Your task to perform on an android device: set default search engine in the chrome app Image 0: 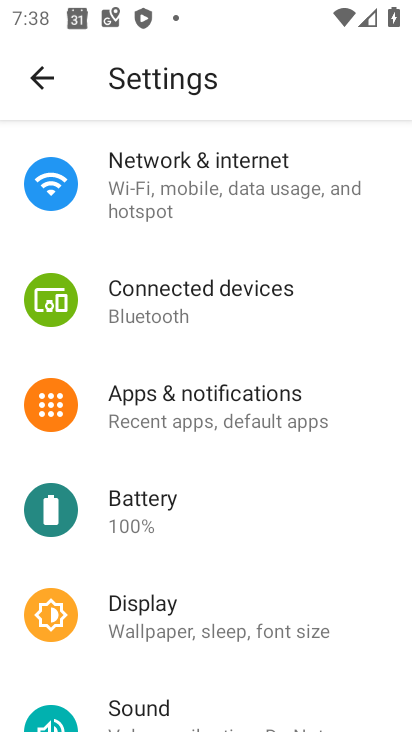
Step 0: press home button
Your task to perform on an android device: set default search engine in the chrome app Image 1: 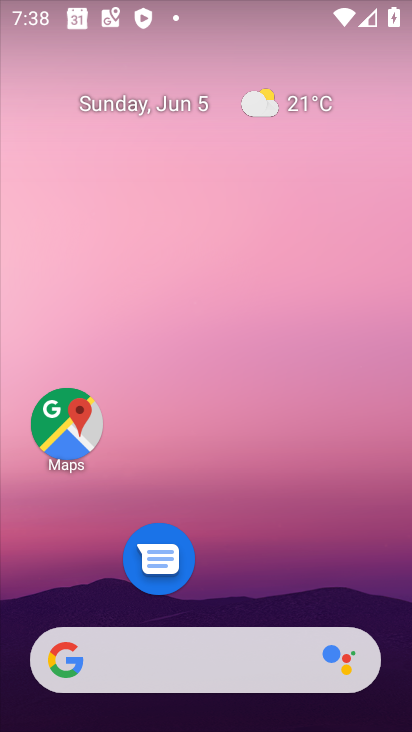
Step 1: drag from (248, 619) to (144, 36)
Your task to perform on an android device: set default search engine in the chrome app Image 2: 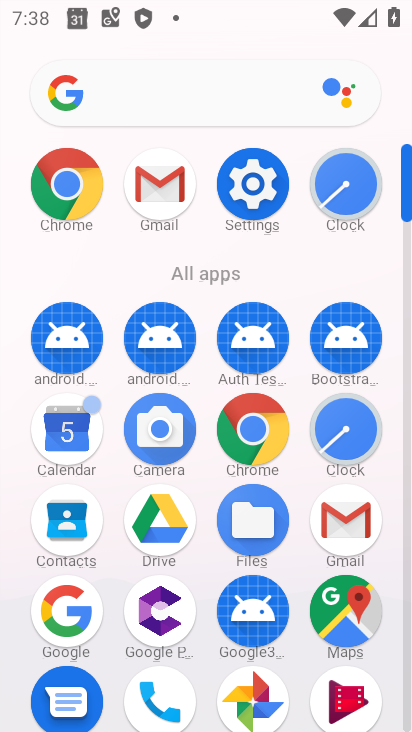
Step 2: click (260, 434)
Your task to perform on an android device: set default search engine in the chrome app Image 3: 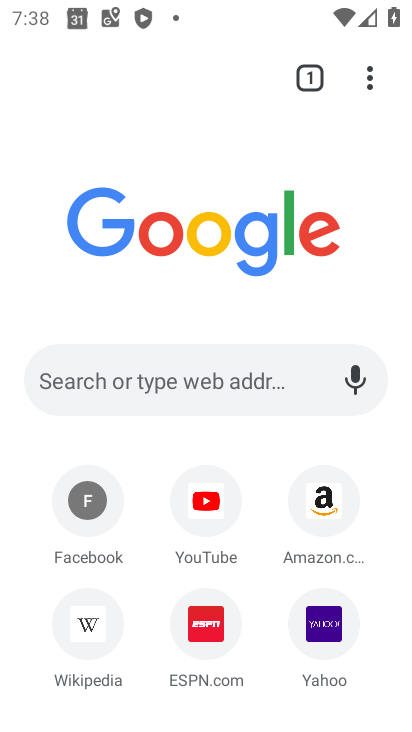
Step 3: click (372, 75)
Your task to perform on an android device: set default search engine in the chrome app Image 4: 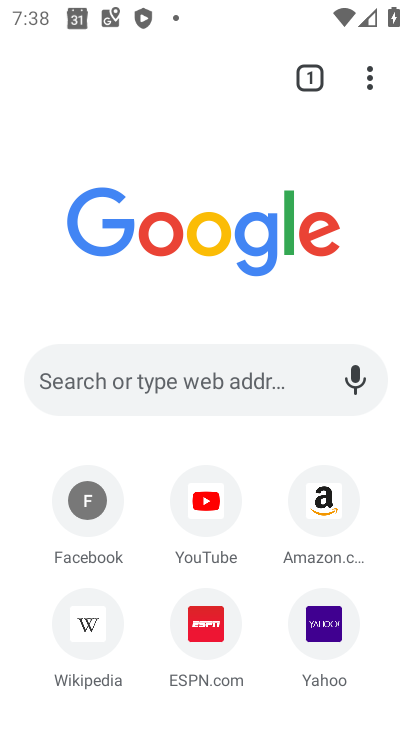
Step 4: drag from (372, 75) to (83, 629)
Your task to perform on an android device: set default search engine in the chrome app Image 5: 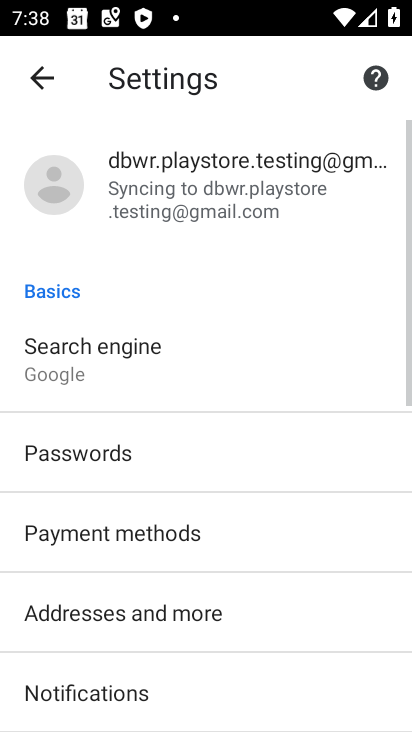
Step 5: drag from (83, 630) to (68, 492)
Your task to perform on an android device: set default search engine in the chrome app Image 6: 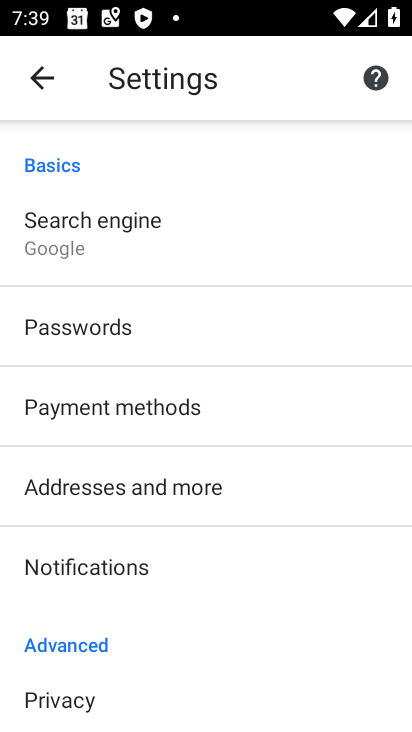
Step 6: click (55, 240)
Your task to perform on an android device: set default search engine in the chrome app Image 7: 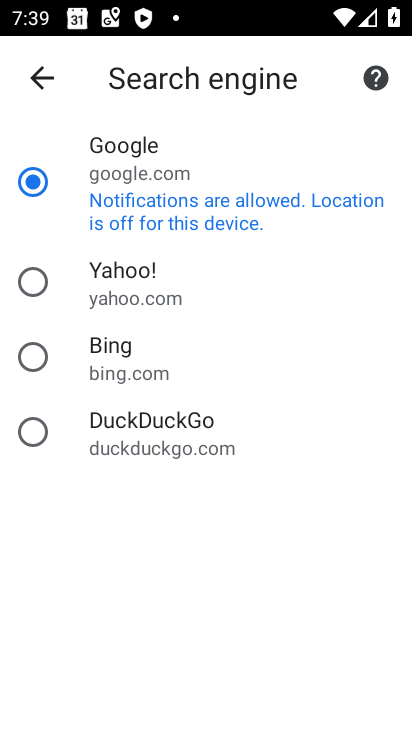
Step 7: task complete